Your task to perform on an android device: Go to accessibility settings Image 0: 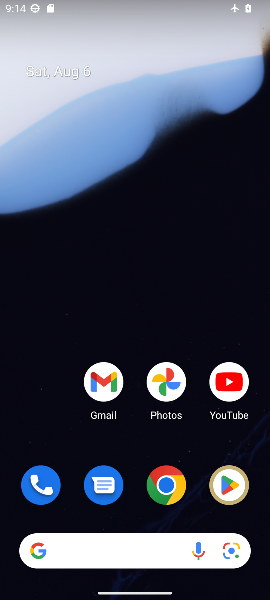
Step 0: drag from (206, 443) to (233, 49)
Your task to perform on an android device: Go to accessibility settings Image 1: 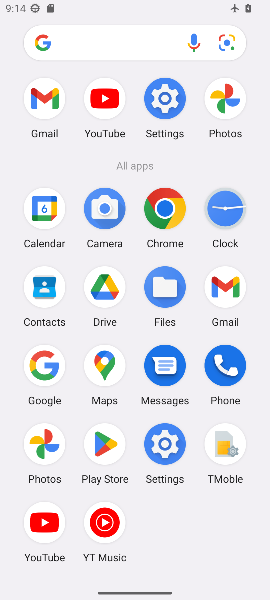
Step 1: click (165, 446)
Your task to perform on an android device: Go to accessibility settings Image 2: 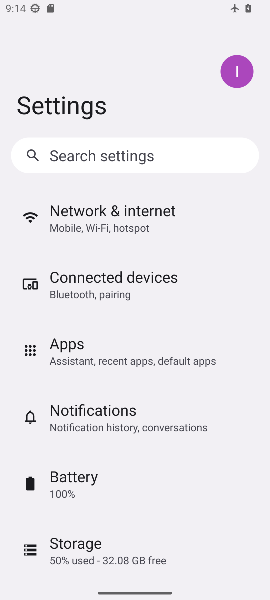
Step 2: drag from (193, 513) to (200, 155)
Your task to perform on an android device: Go to accessibility settings Image 3: 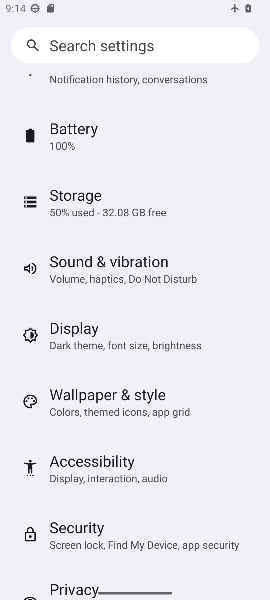
Step 3: drag from (185, 168) to (154, 543)
Your task to perform on an android device: Go to accessibility settings Image 4: 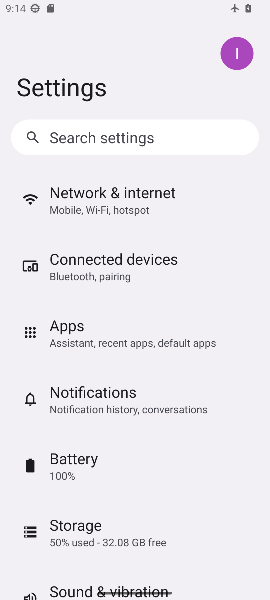
Step 4: drag from (171, 521) to (189, 92)
Your task to perform on an android device: Go to accessibility settings Image 5: 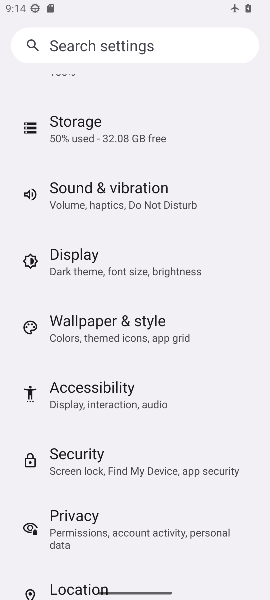
Step 5: click (125, 398)
Your task to perform on an android device: Go to accessibility settings Image 6: 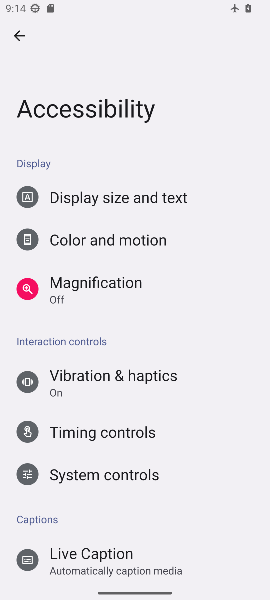
Step 6: task complete